Your task to perform on an android device: When is my next appointment? Image 0: 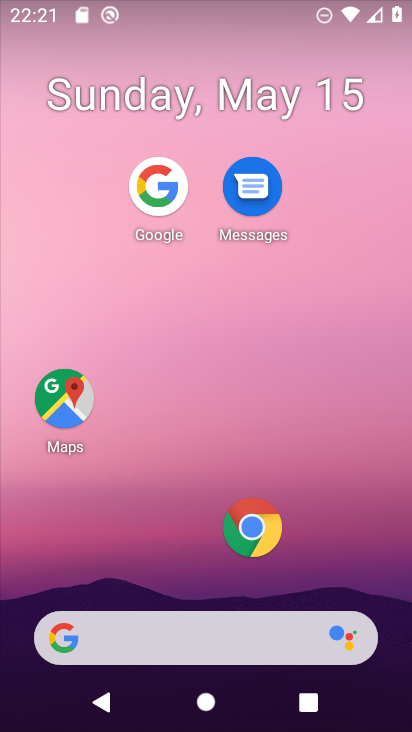
Step 0: press home button
Your task to perform on an android device: When is my next appointment? Image 1: 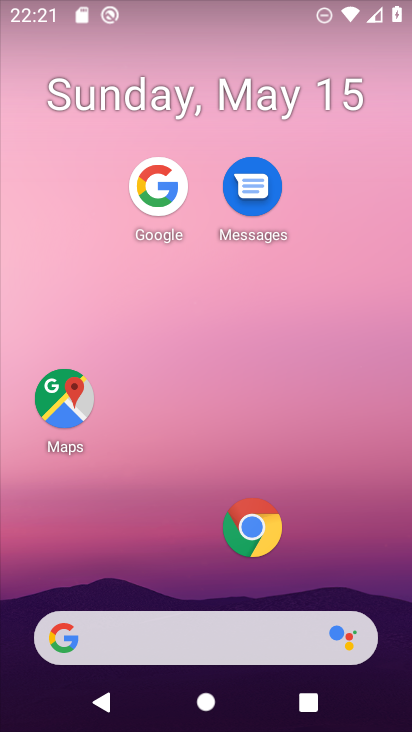
Step 1: drag from (183, 636) to (294, 200)
Your task to perform on an android device: When is my next appointment? Image 2: 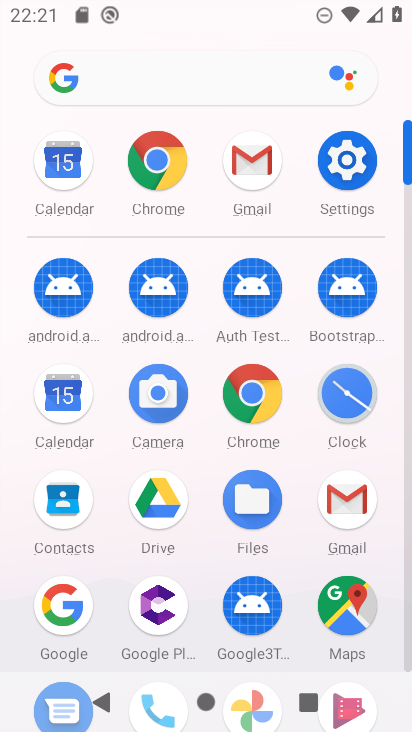
Step 2: click (63, 401)
Your task to perform on an android device: When is my next appointment? Image 3: 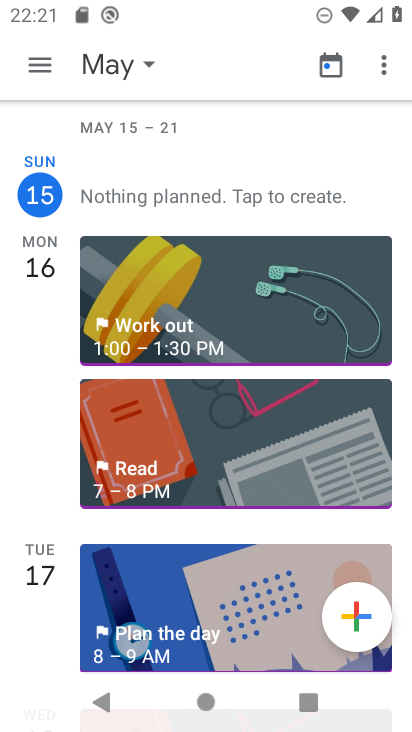
Step 3: click (119, 68)
Your task to perform on an android device: When is my next appointment? Image 4: 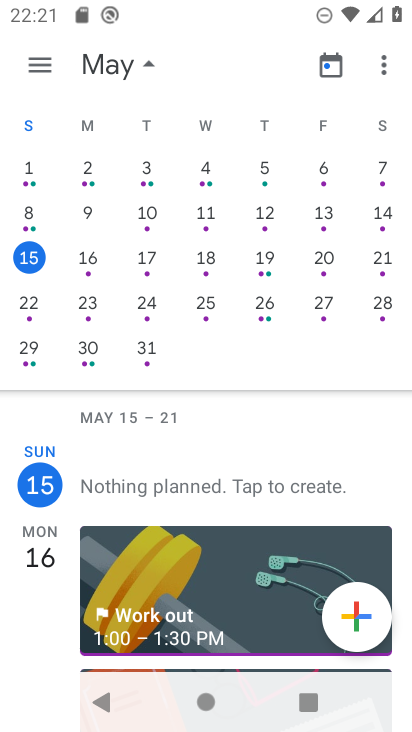
Step 4: click (25, 256)
Your task to perform on an android device: When is my next appointment? Image 5: 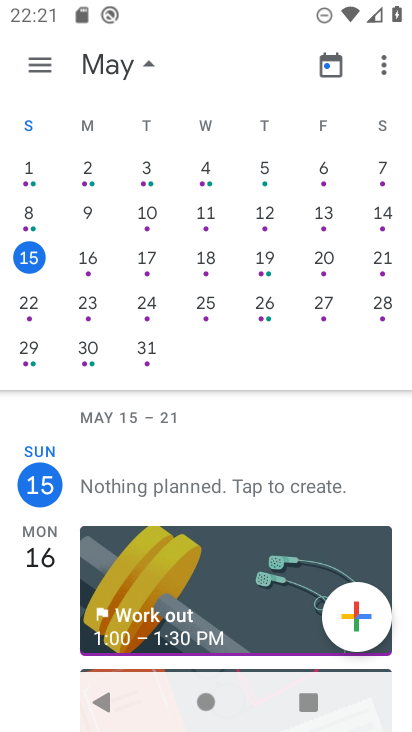
Step 5: click (46, 65)
Your task to perform on an android device: When is my next appointment? Image 6: 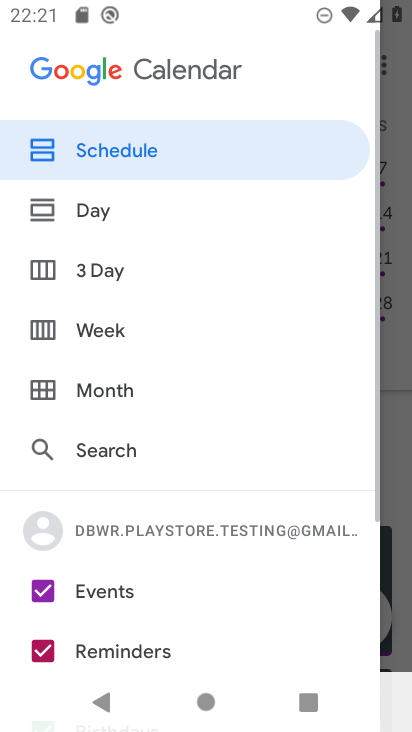
Step 6: click (94, 333)
Your task to perform on an android device: When is my next appointment? Image 7: 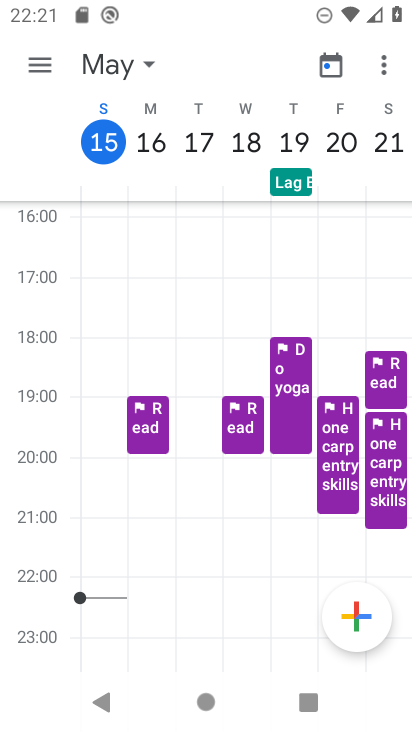
Step 7: click (36, 69)
Your task to perform on an android device: When is my next appointment? Image 8: 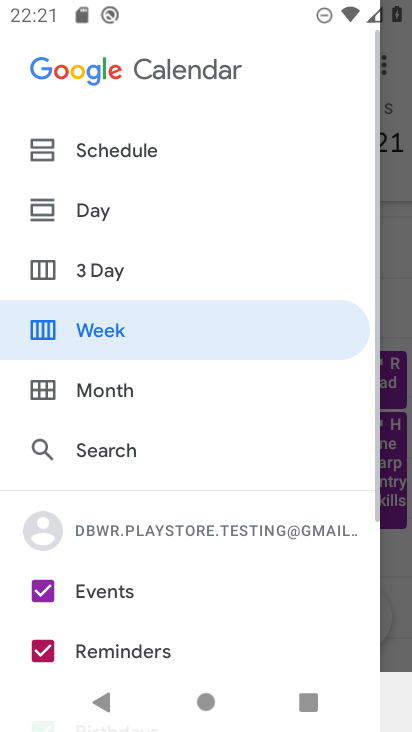
Step 8: click (112, 150)
Your task to perform on an android device: When is my next appointment? Image 9: 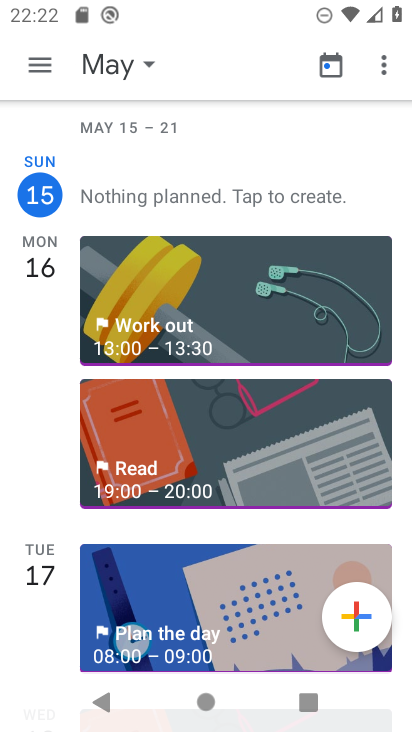
Step 9: task complete